Your task to perform on an android device: What's the weather today? Image 0: 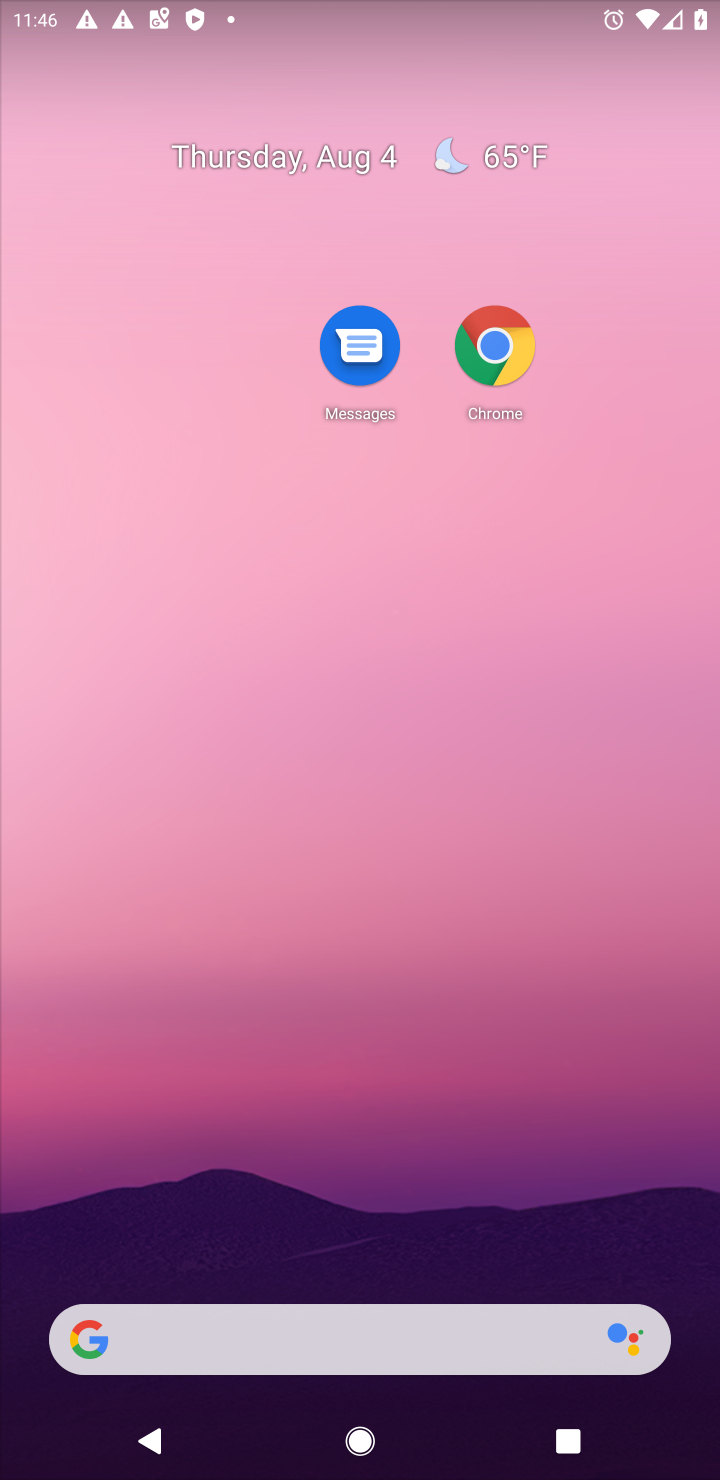
Step 0: drag from (248, 1152) to (445, 53)
Your task to perform on an android device: What's the weather today? Image 1: 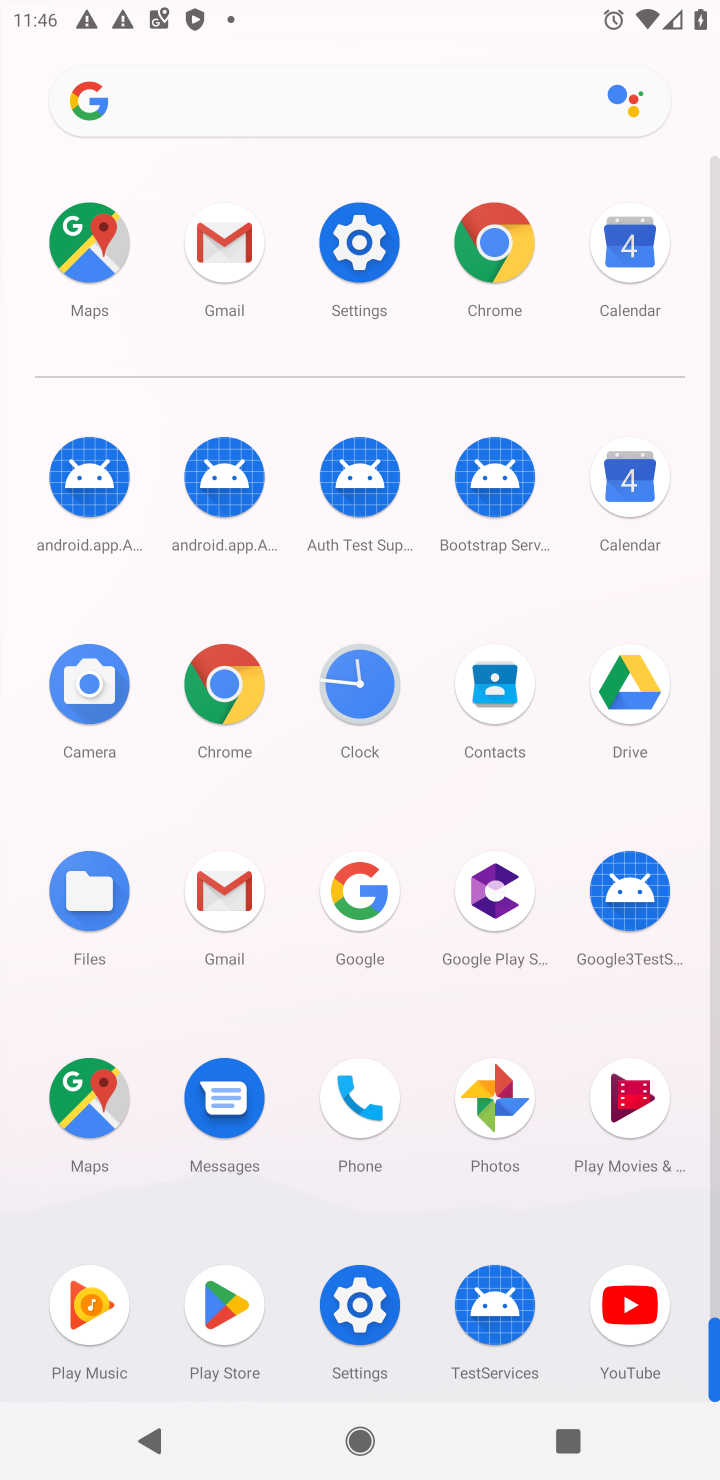
Step 1: click (357, 883)
Your task to perform on an android device: What's the weather today? Image 2: 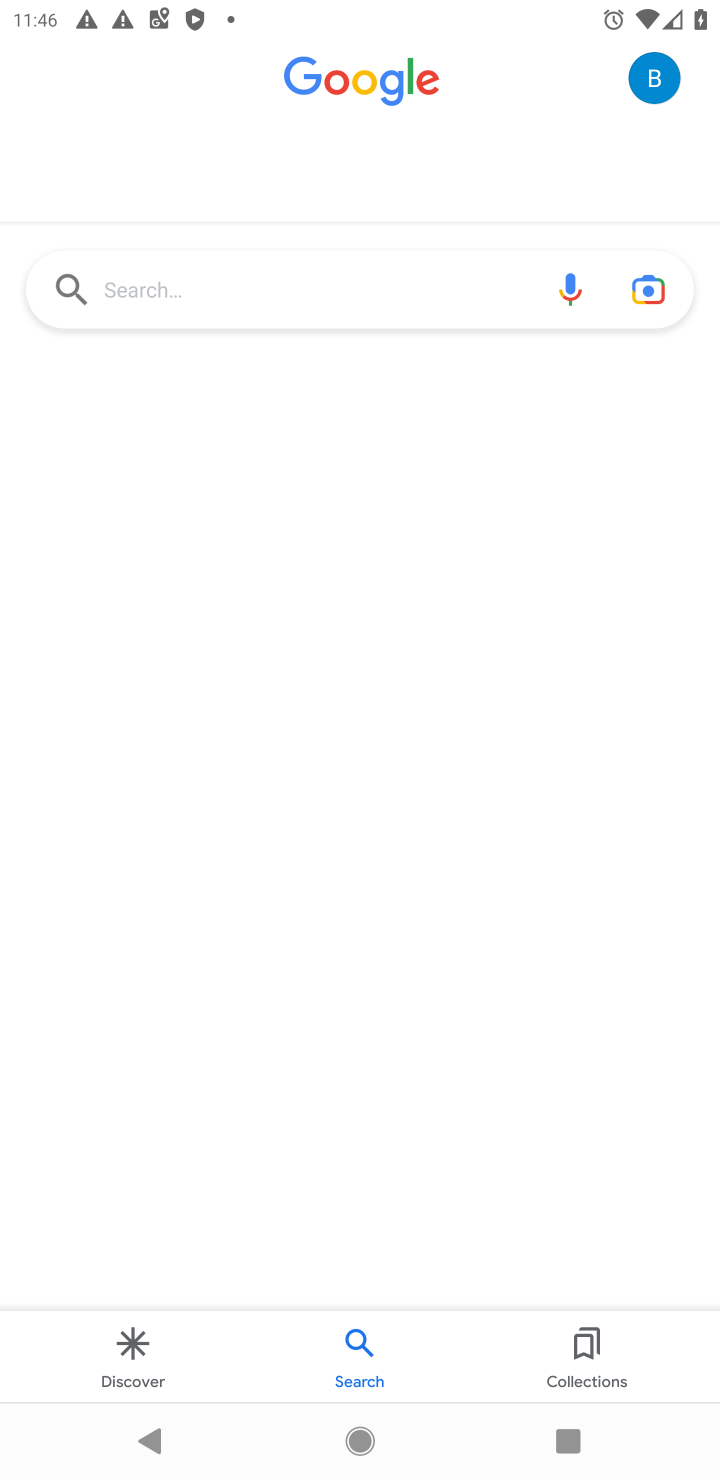
Step 2: click (304, 292)
Your task to perform on an android device: What's the weather today? Image 3: 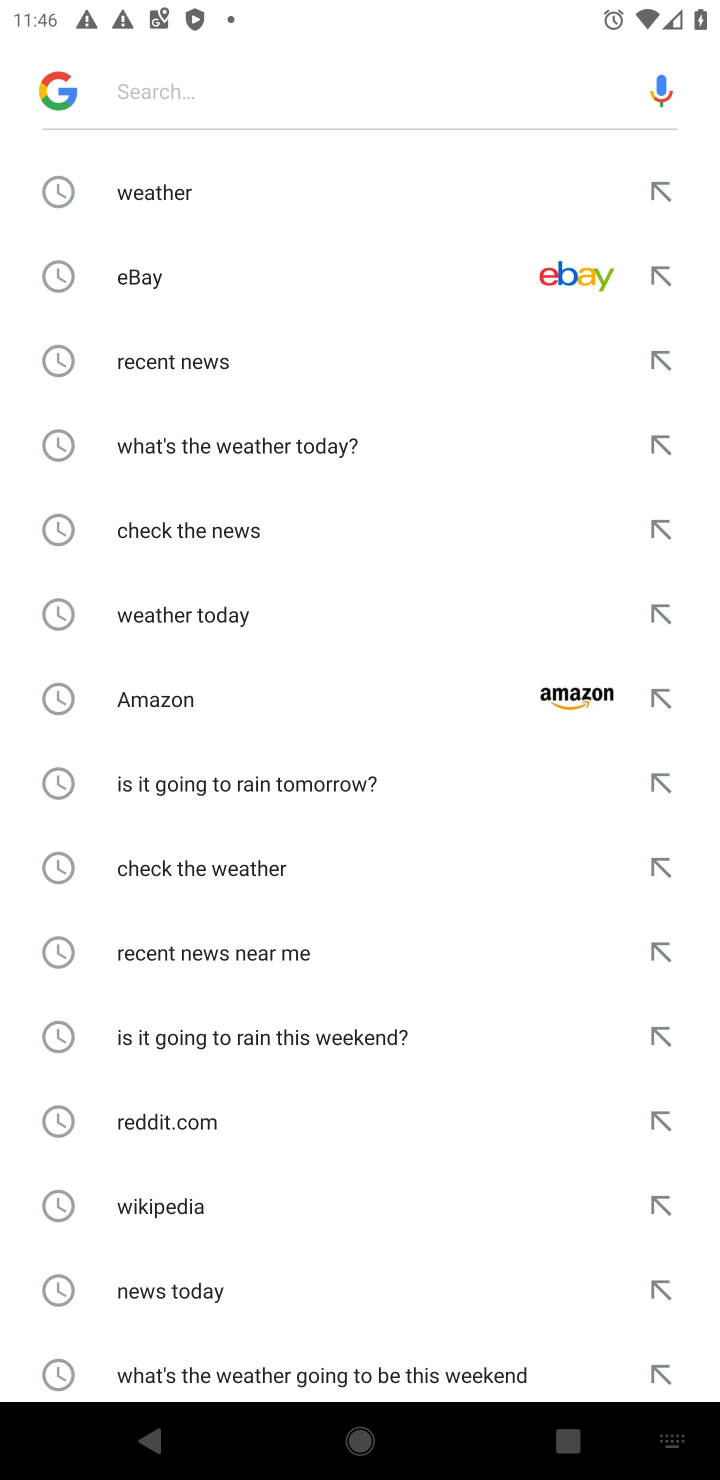
Step 3: click (153, 197)
Your task to perform on an android device: What's the weather today? Image 4: 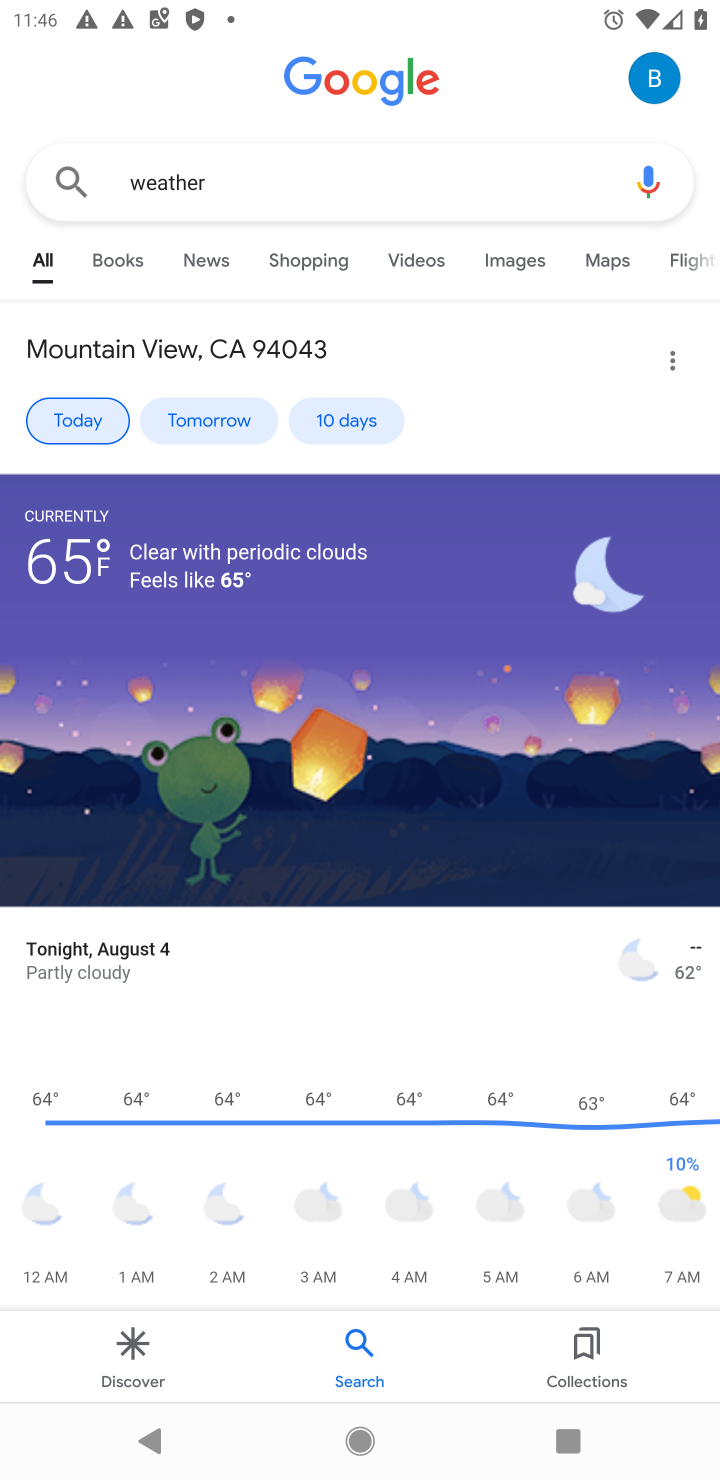
Step 4: task complete